Your task to perform on an android device: Look up the best rated coffee maker on Lowe's. Image 0: 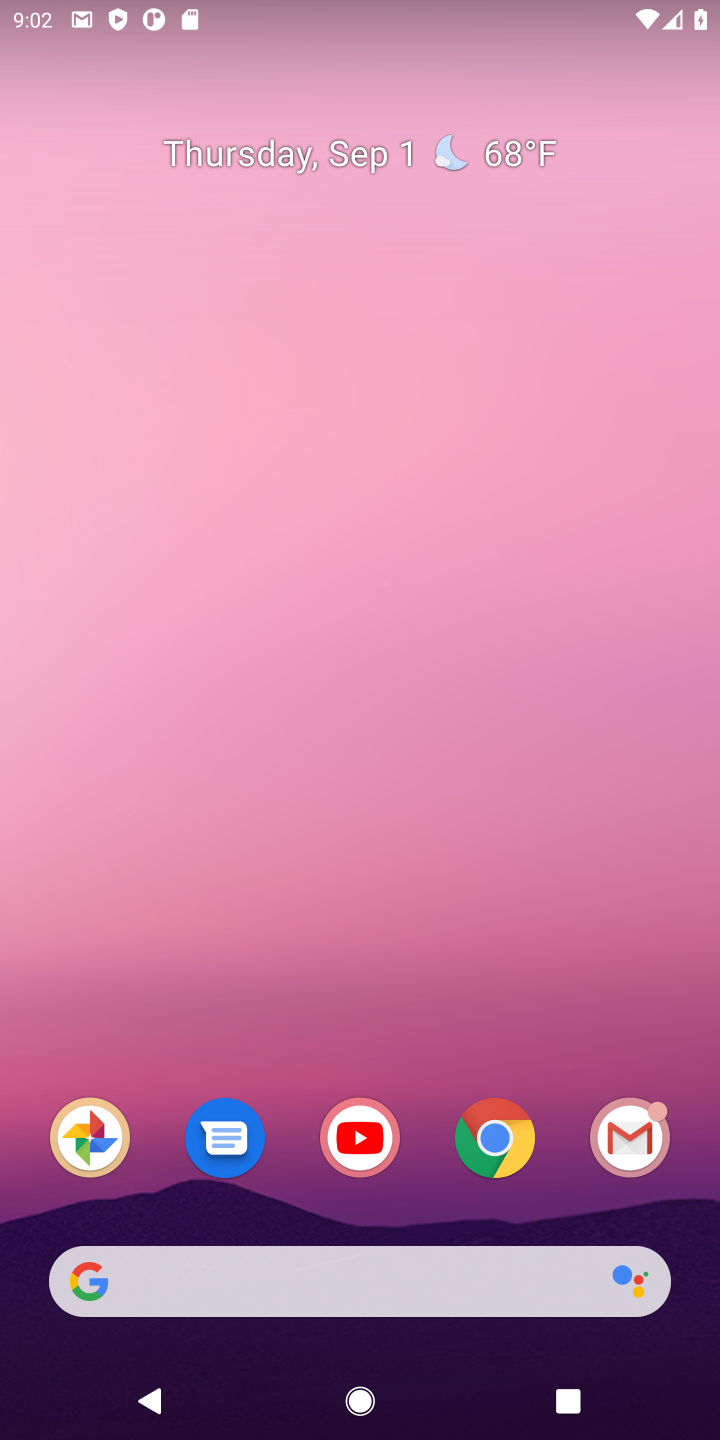
Step 0: click (521, 1141)
Your task to perform on an android device: Look up the best rated coffee maker on Lowe's. Image 1: 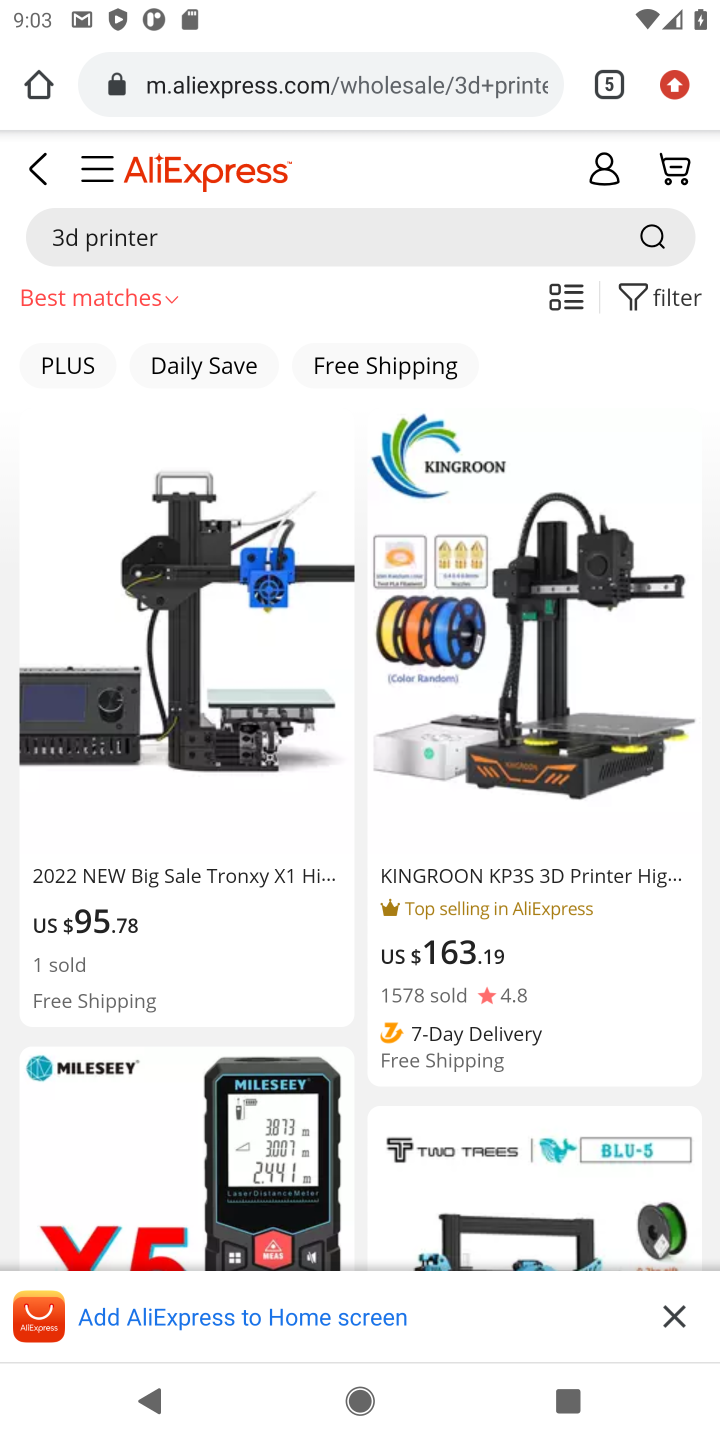
Step 1: click (611, 86)
Your task to perform on an android device: Look up the best rated coffee maker on Lowe's. Image 2: 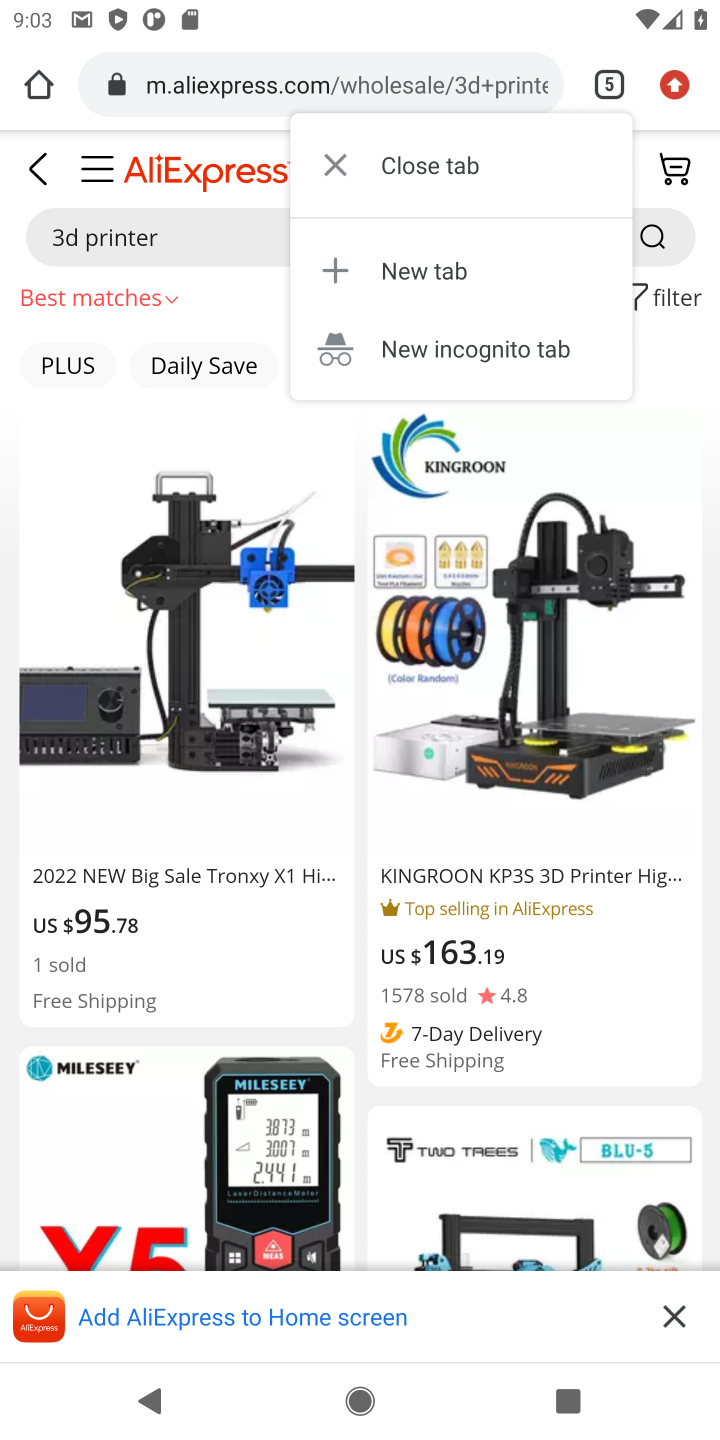
Step 2: click (473, 283)
Your task to perform on an android device: Look up the best rated coffee maker on Lowe's. Image 3: 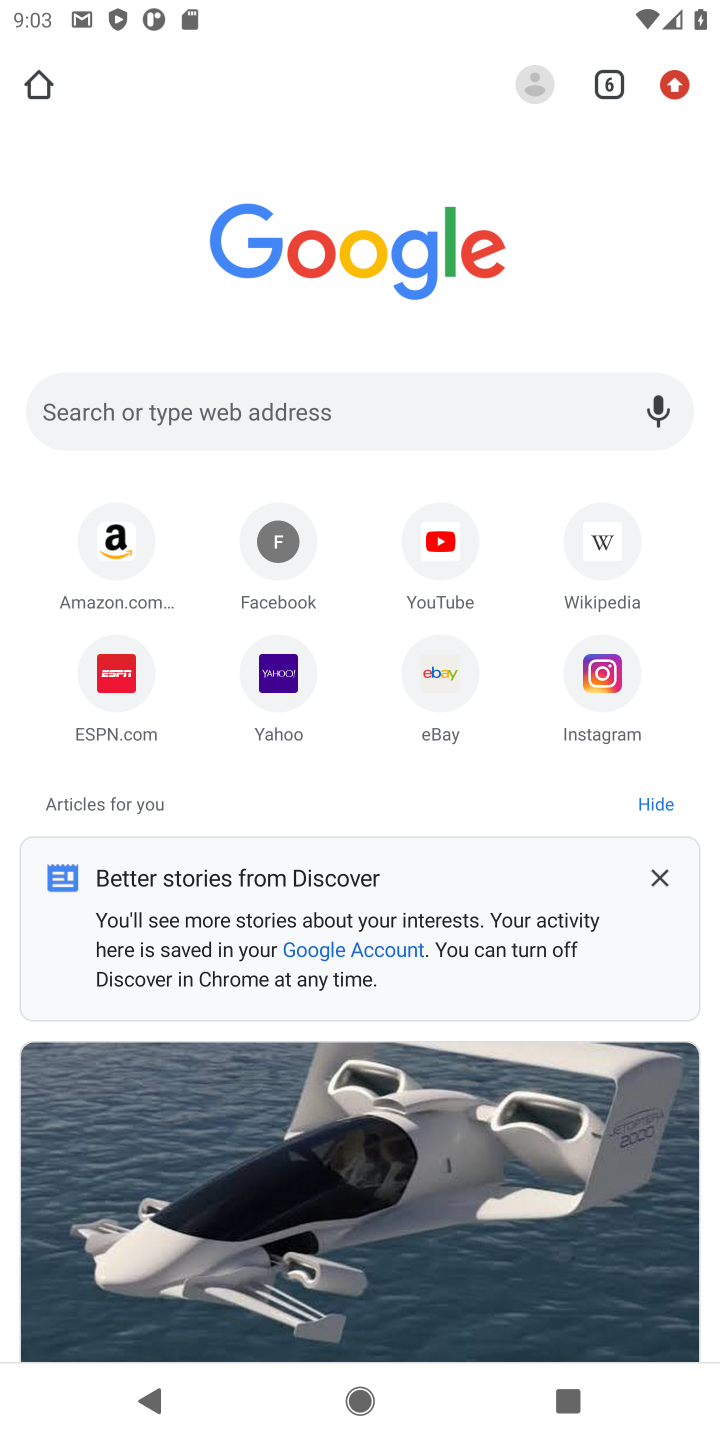
Step 3: click (253, 387)
Your task to perform on an android device: Look up the best rated coffee maker on Lowe's. Image 4: 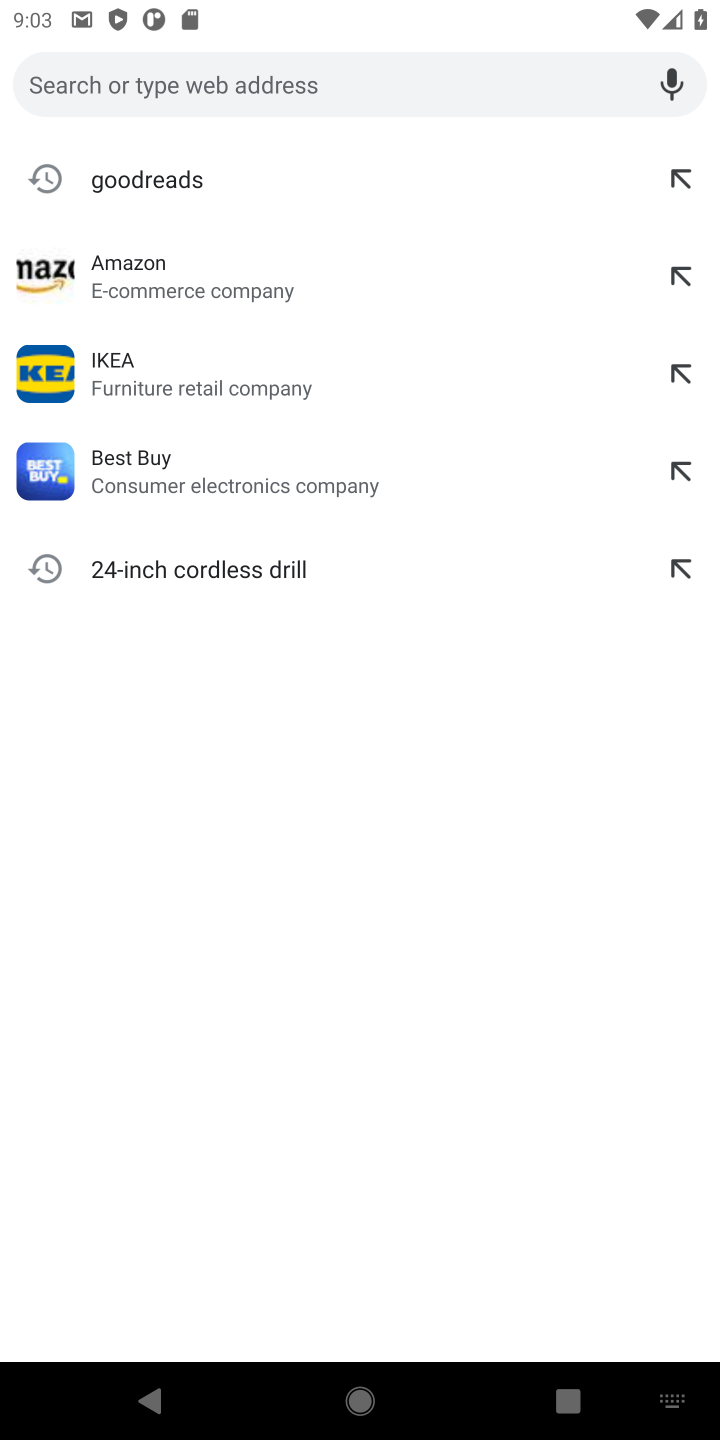
Step 4: type "lowe's"
Your task to perform on an android device: Look up the best rated coffee maker on Lowe's. Image 5: 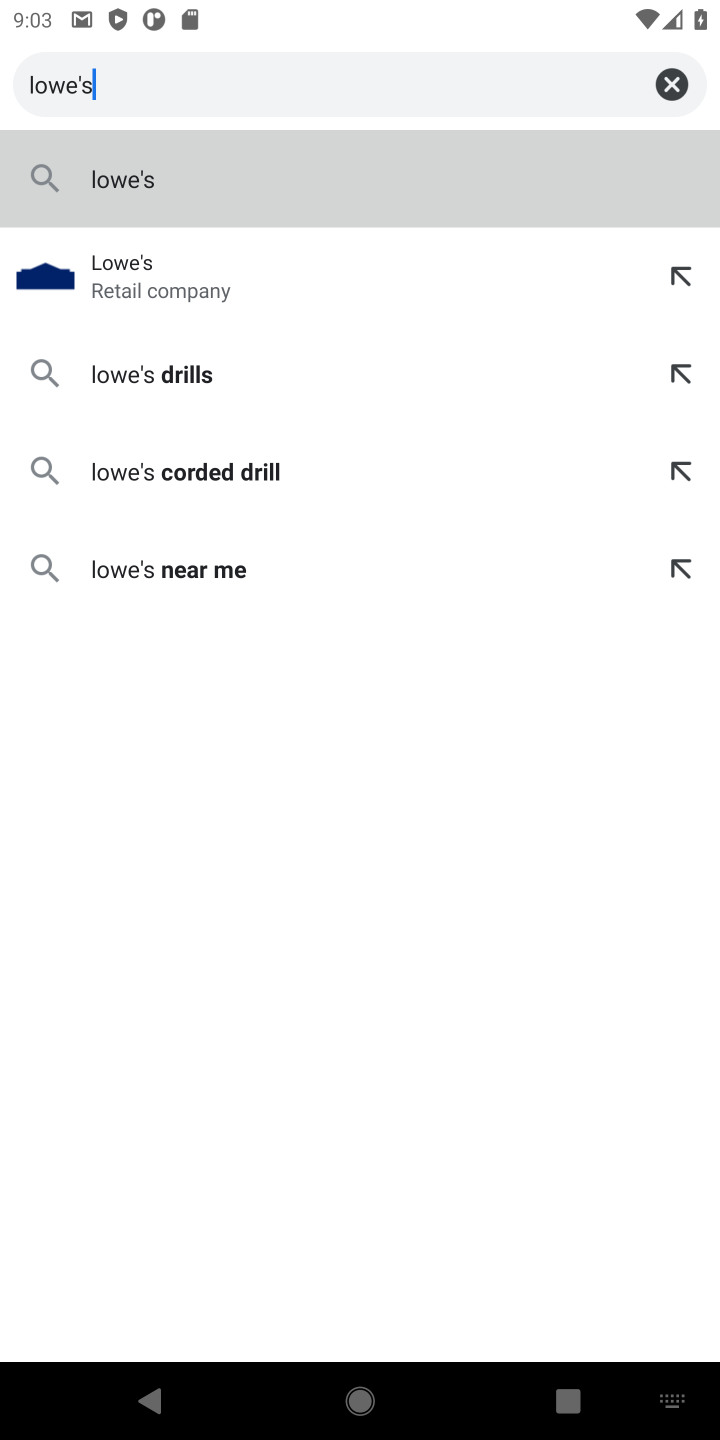
Step 5: click (223, 285)
Your task to perform on an android device: Look up the best rated coffee maker on Lowe's. Image 6: 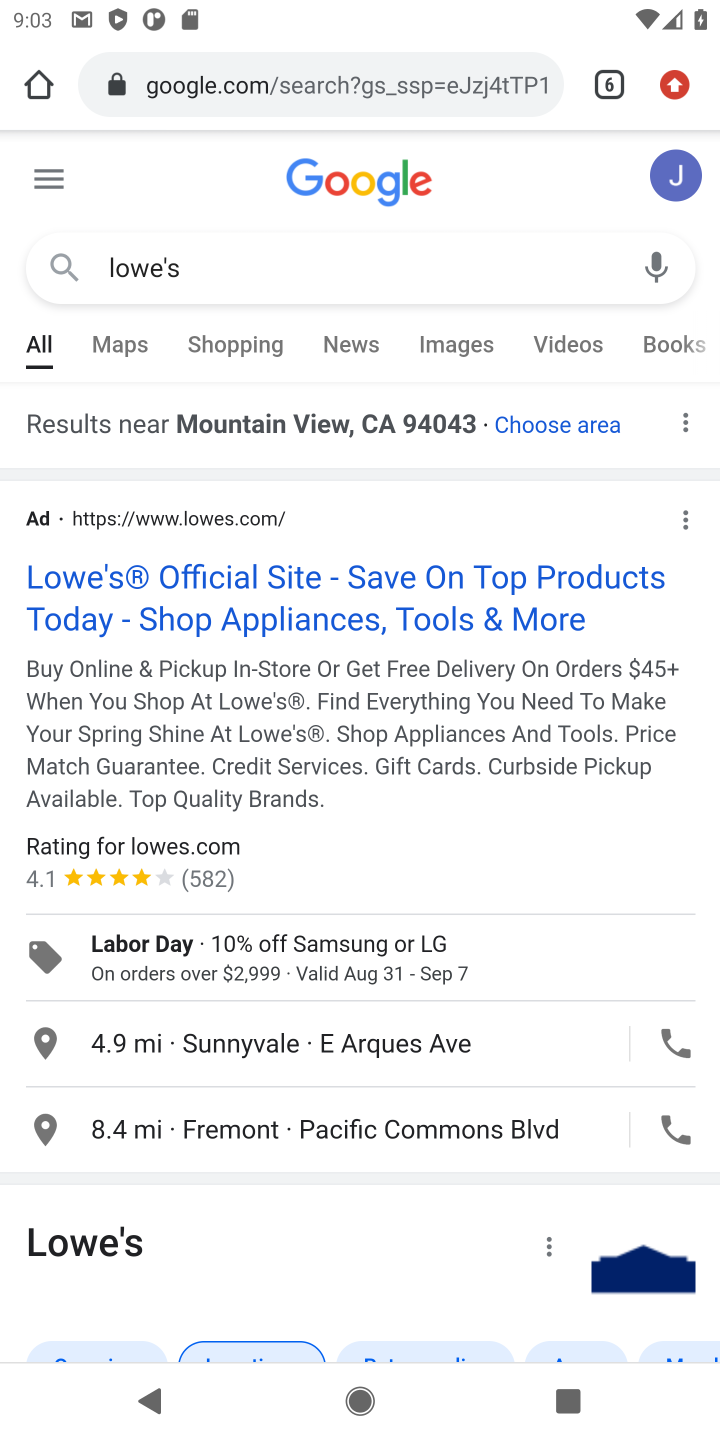
Step 6: click (186, 589)
Your task to perform on an android device: Look up the best rated coffee maker on Lowe's. Image 7: 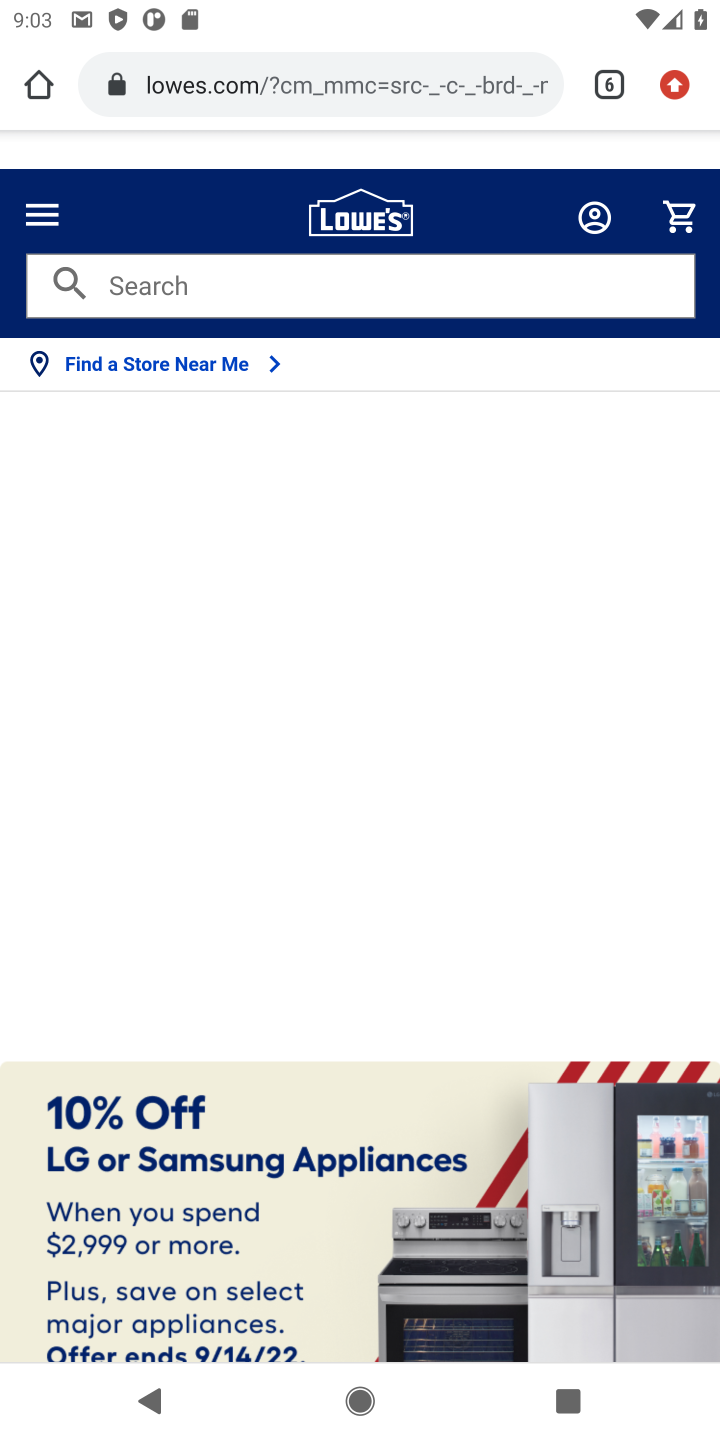
Step 7: click (321, 280)
Your task to perform on an android device: Look up the best rated coffee maker on Lowe's. Image 8: 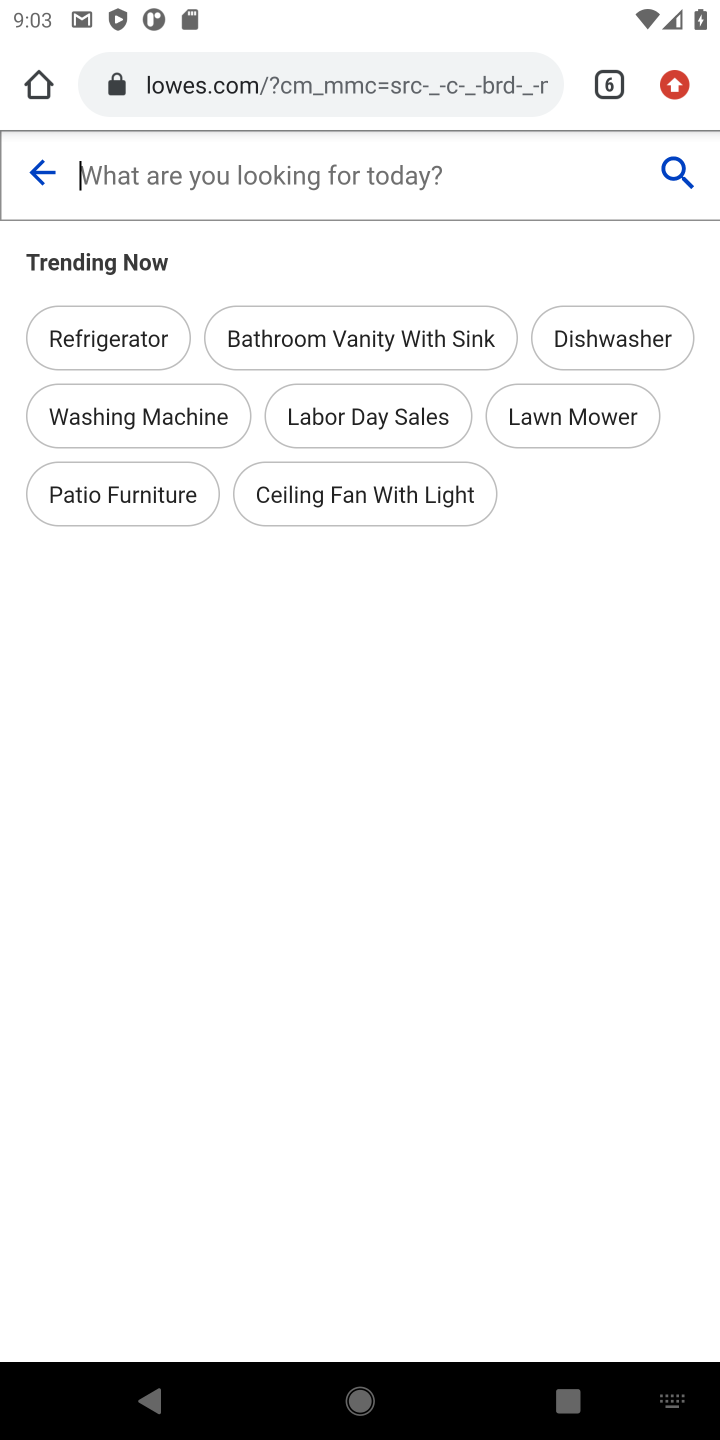
Step 8: type "best rated coffee maker"
Your task to perform on an android device: Look up the best rated coffee maker on Lowe's. Image 9: 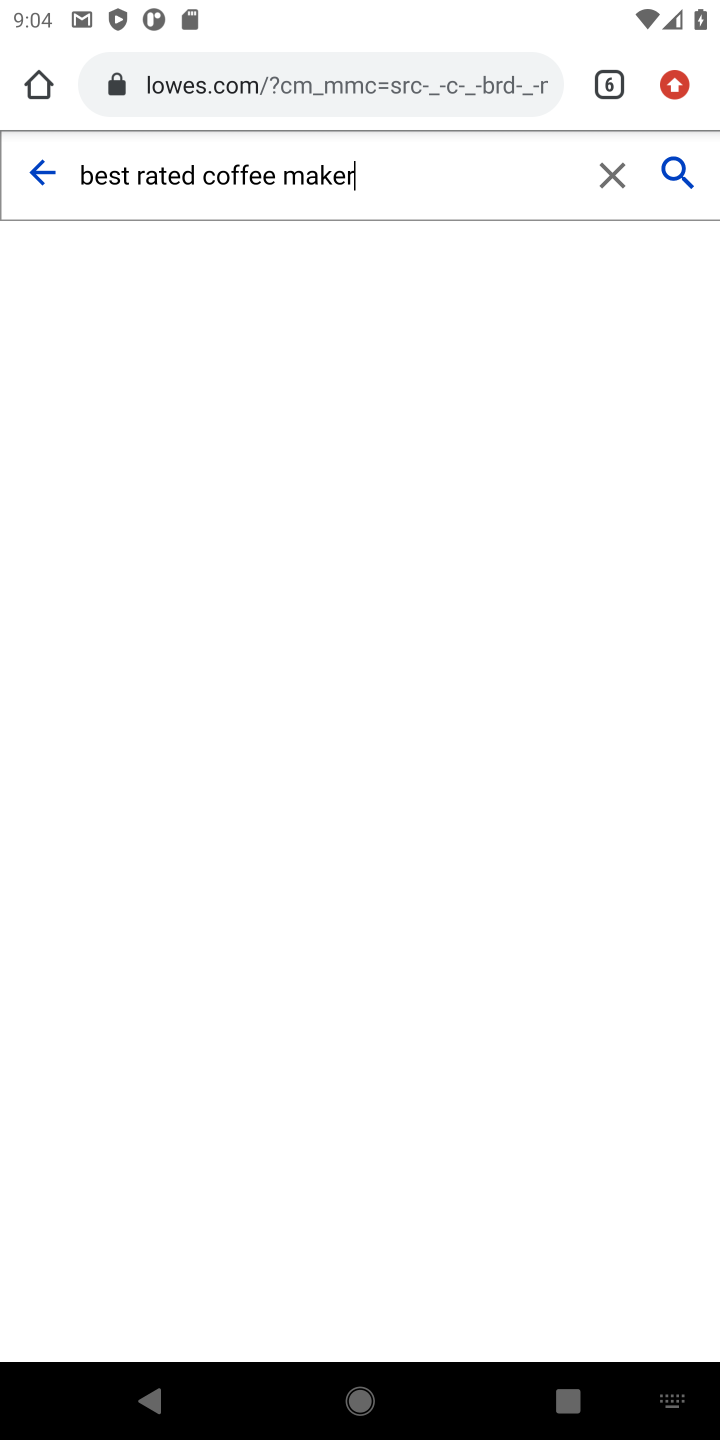
Step 9: click (679, 171)
Your task to perform on an android device: Look up the best rated coffee maker on Lowe's. Image 10: 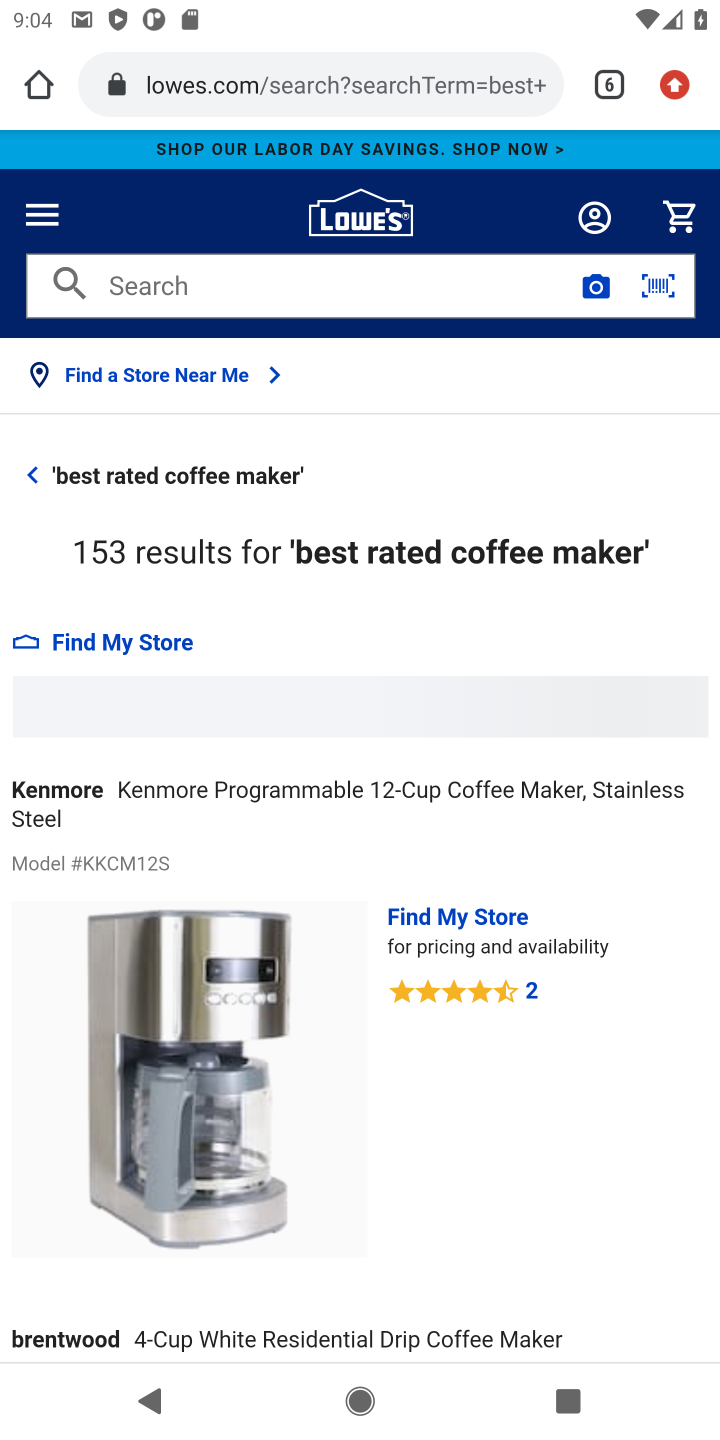
Step 10: task complete